Your task to perform on an android device: delete a single message in the gmail app Image 0: 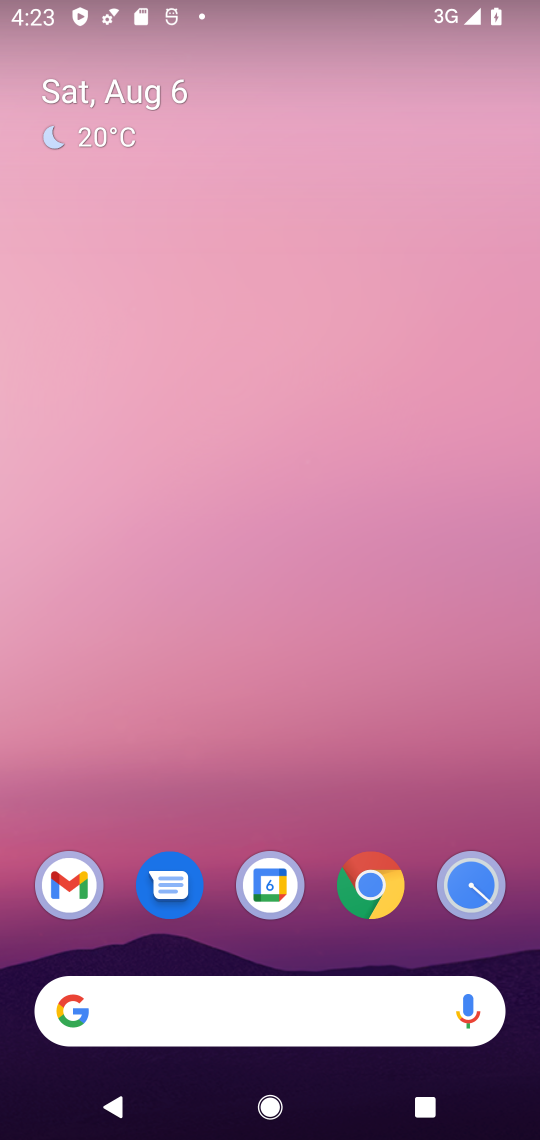
Step 0: drag from (420, 869) to (171, 67)
Your task to perform on an android device: delete a single message in the gmail app Image 1: 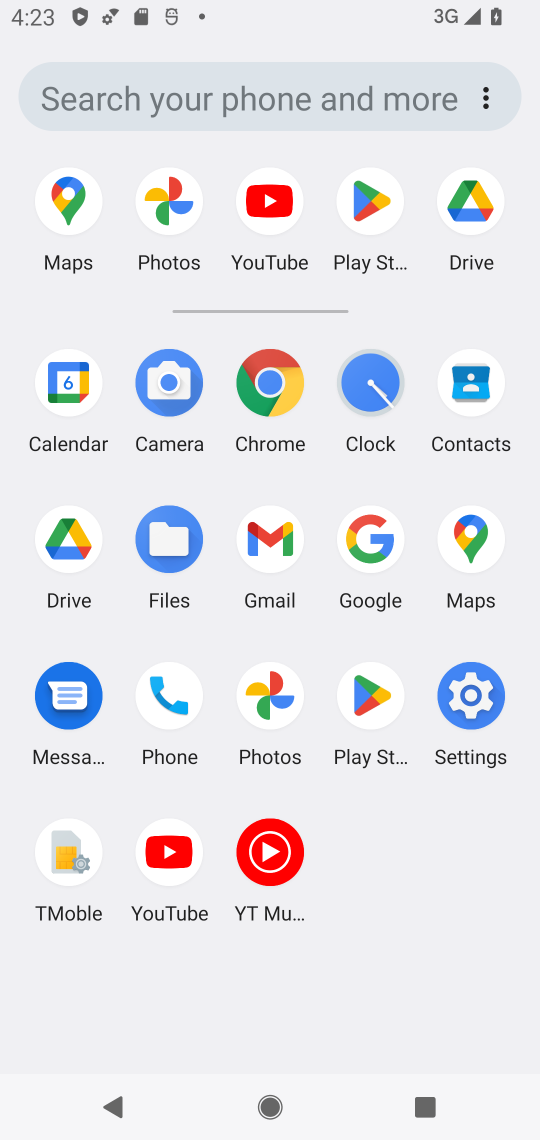
Step 1: click (265, 545)
Your task to perform on an android device: delete a single message in the gmail app Image 2: 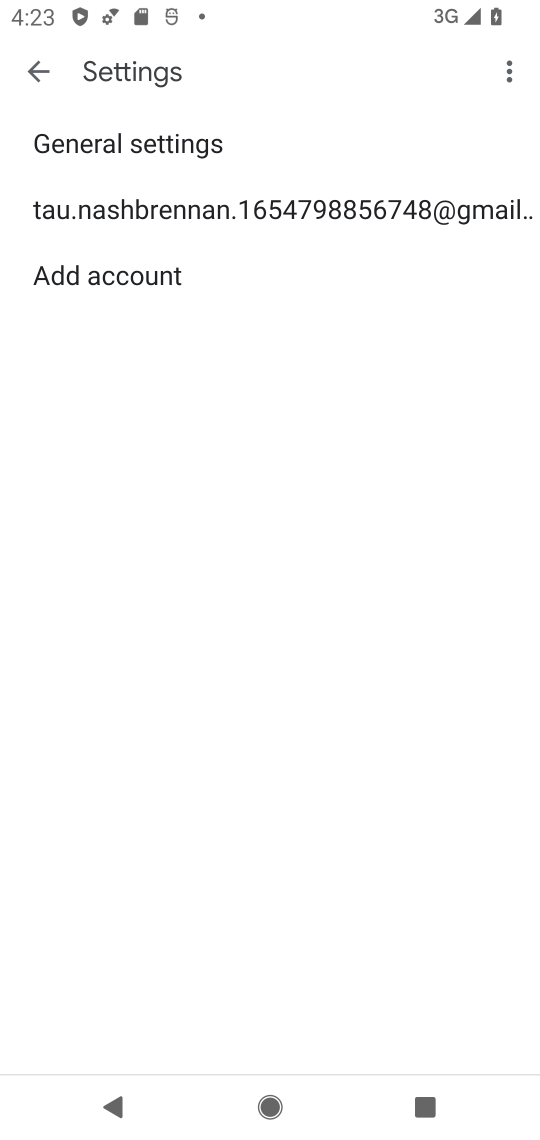
Step 2: task complete